Your task to perform on an android device: toggle improve location accuracy Image 0: 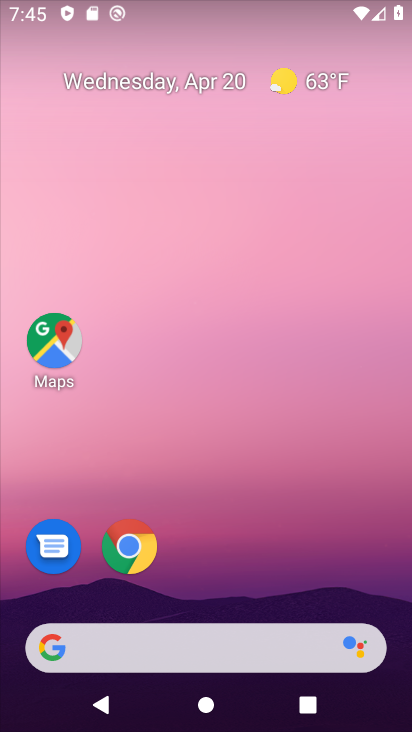
Step 0: drag from (346, 520) to (408, 63)
Your task to perform on an android device: toggle improve location accuracy Image 1: 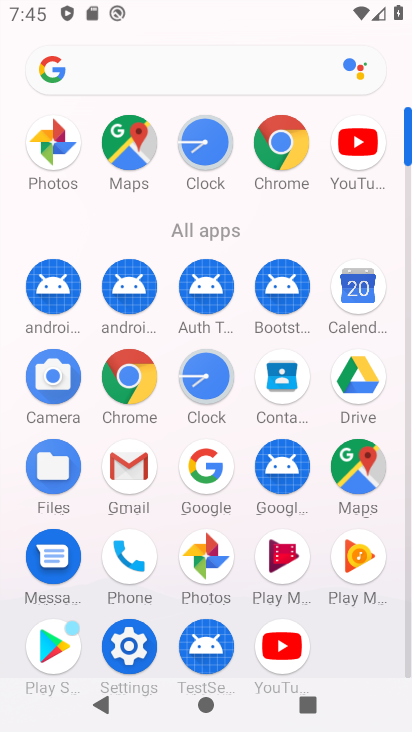
Step 1: click (128, 637)
Your task to perform on an android device: toggle improve location accuracy Image 2: 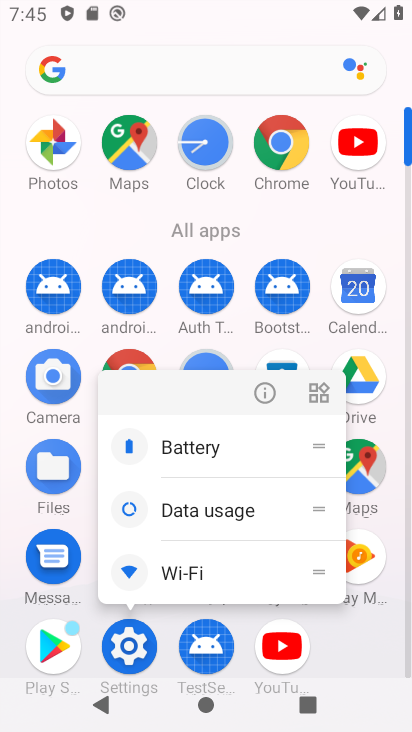
Step 2: click (128, 637)
Your task to perform on an android device: toggle improve location accuracy Image 3: 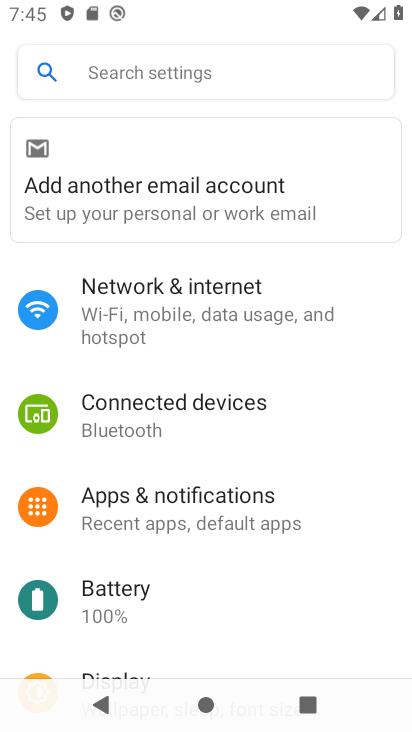
Step 3: drag from (264, 593) to (335, 239)
Your task to perform on an android device: toggle improve location accuracy Image 4: 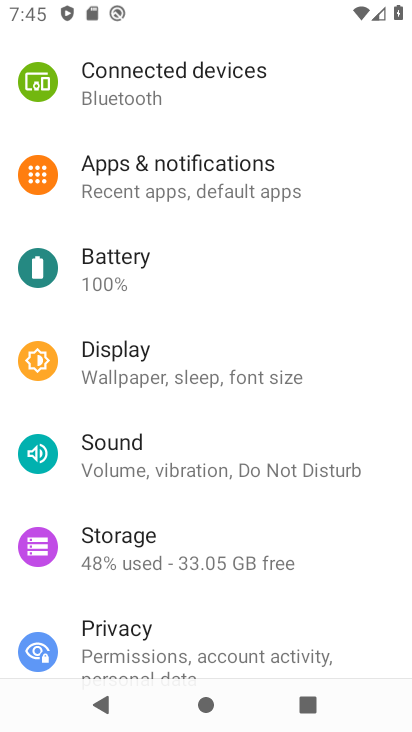
Step 4: drag from (246, 593) to (226, 222)
Your task to perform on an android device: toggle improve location accuracy Image 5: 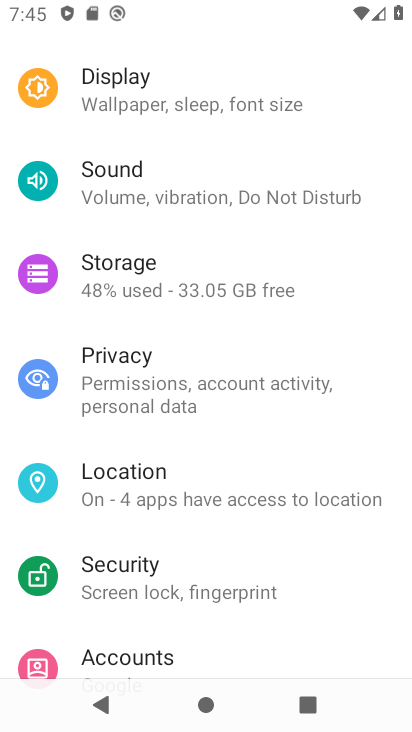
Step 5: click (228, 483)
Your task to perform on an android device: toggle improve location accuracy Image 6: 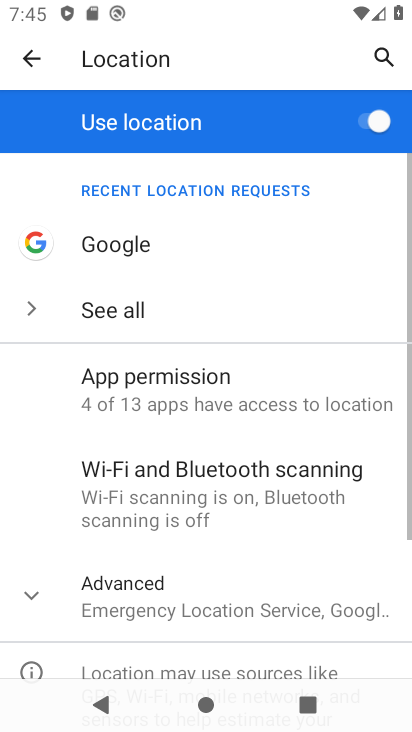
Step 6: drag from (250, 547) to (252, 321)
Your task to perform on an android device: toggle improve location accuracy Image 7: 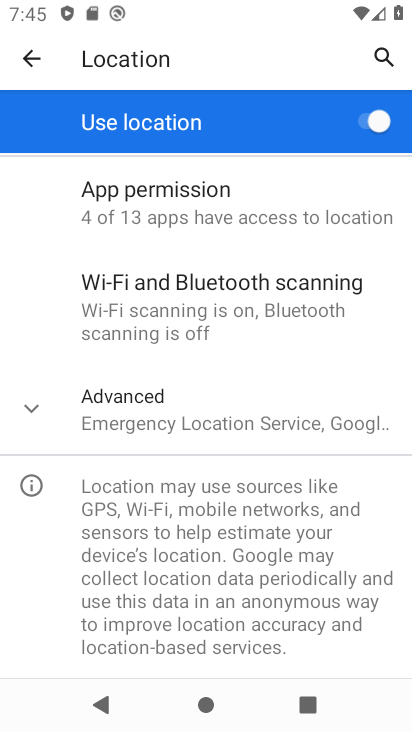
Step 7: click (31, 406)
Your task to perform on an android device: toggle improve location accuracy Image 8: 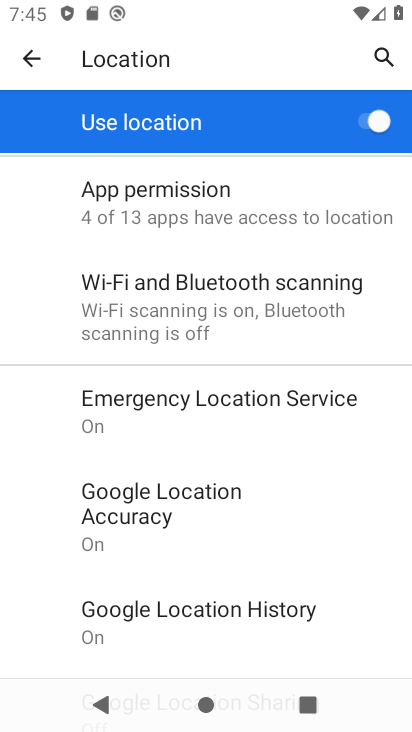
Step 8: click (185, 524)
Your task to perform on an android device: toggle improve location accuracy Image 9: 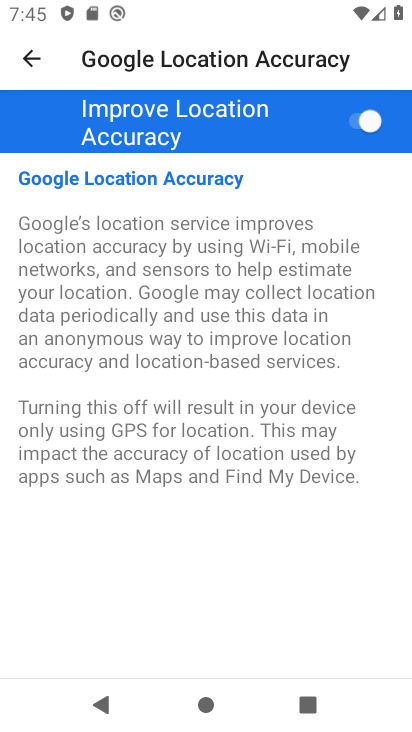
Step 9: click (349, 115)
Your task to perform on an android device: toggle improve location accuracy Image 10: 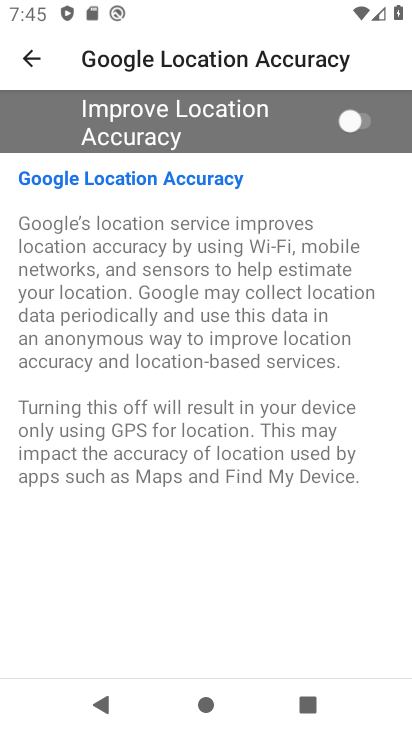
Step 10: task complete